Your task to perform on an android device: change the clock display to digital Image 0: 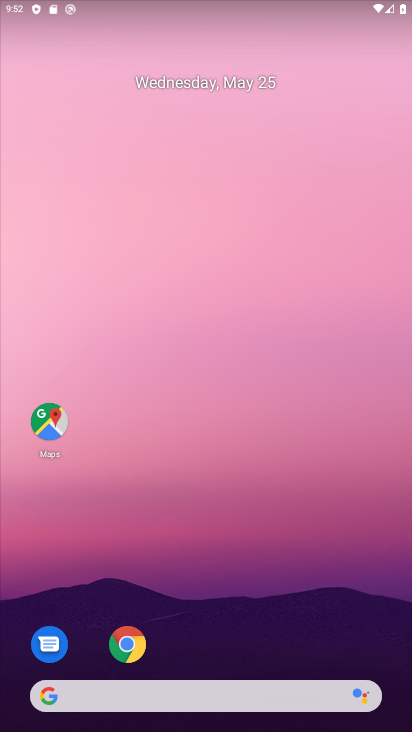
Step 0: drag from (248, 529) to (273, 3)
Your task to perform on an android device: change the clock display to digital Image 1: 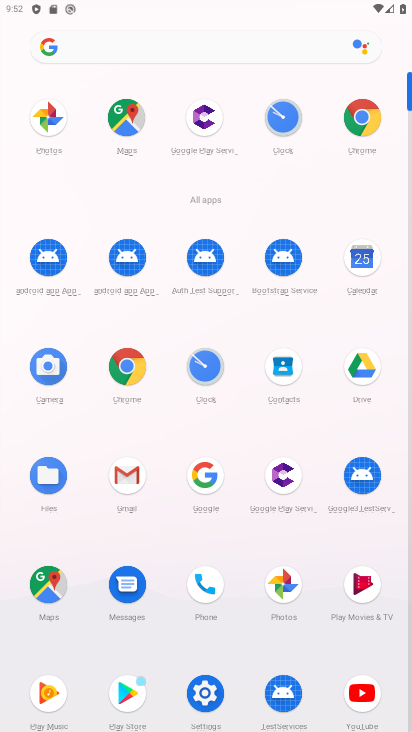
Step 1: click (200, 374)
Your task to perform on an android device: change the clock display to digital Image 2: 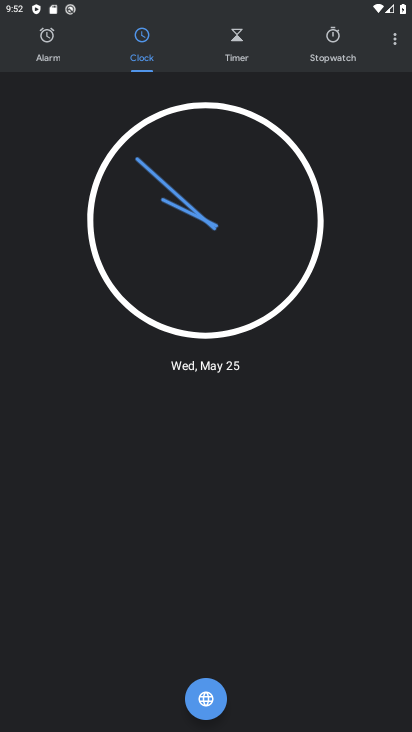
Step 2: click (385, 43)
Your task to perform on an android device: change the clock display to digital Image 3: 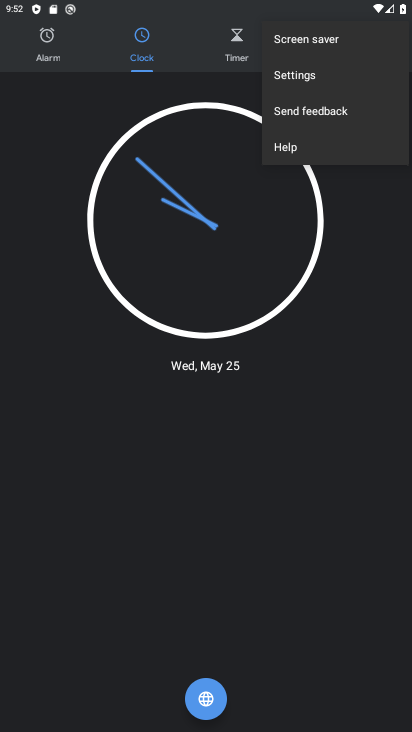
Step 3: click (345, 77)
Your task to perform on an android device: change the clock display to digital Image 4: 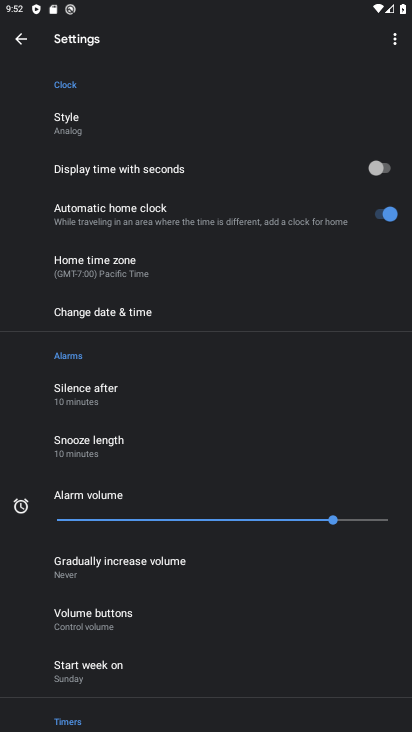
Step 4: click (99, 116)
Your task to perform on an android device: change the clock display to digital Image 5: 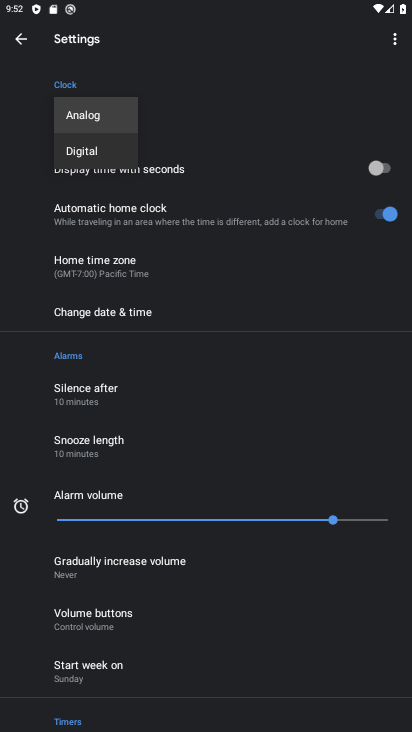
Step 5: click (102, 146)
Your task to perform on an android device: change the clock display to digital Image 6: 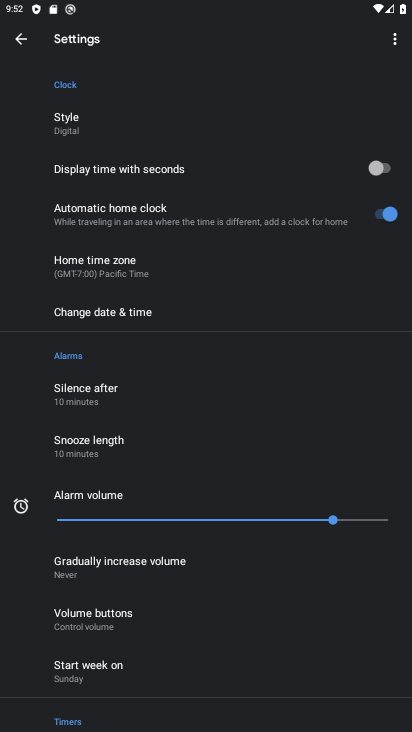
Step 6: task complete